Your task to perform on an android device: Do I have any events tomorrow? Image 0: 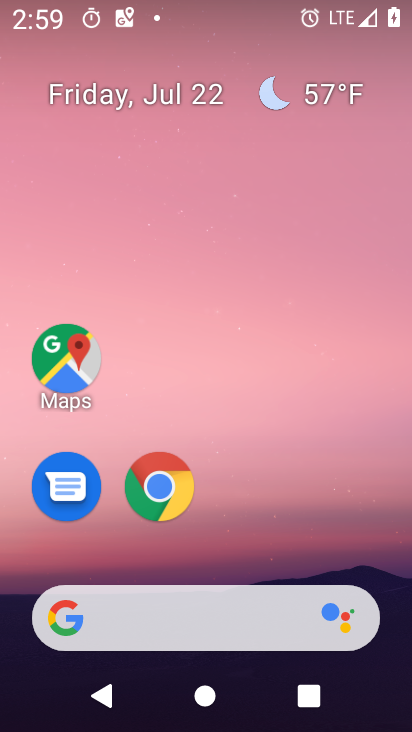
Step 0: press home button
Your task to perform on an android device: Do I have any events tomorrow? Image 1: 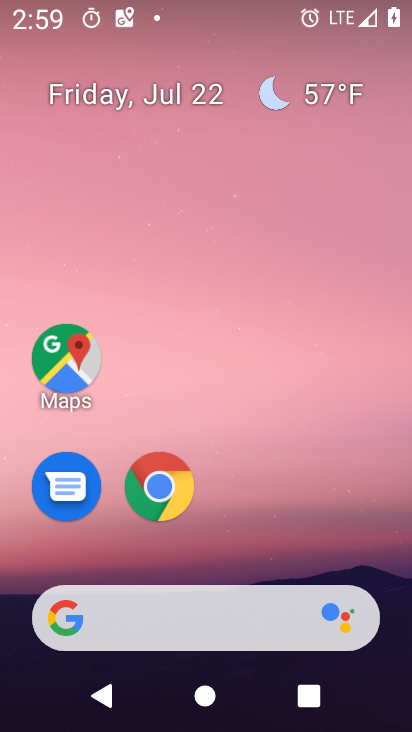
Step 1: drag from (377, 506) to (358, 164)
Your task to perform on an android device: Do I have any events tomorrow? Image 2: 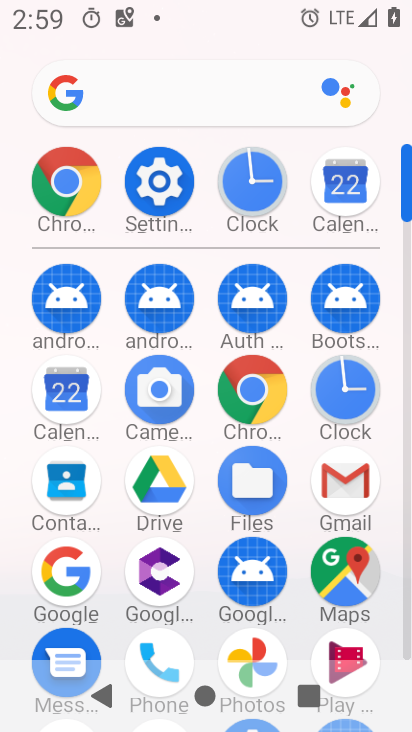
Step 2: click (347, 201)
Your task to perform on an android device: Do I have any events tomorrow? Image 3: 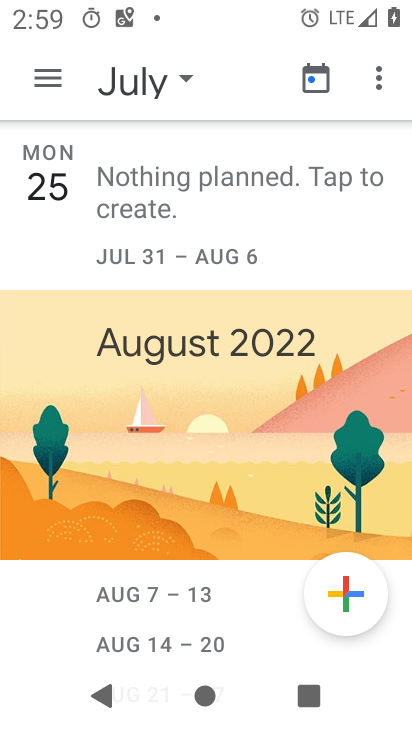
Step 3: click (182, 79)
Your task to perform on an android device: Do I have any events tomorrow? Image 4: 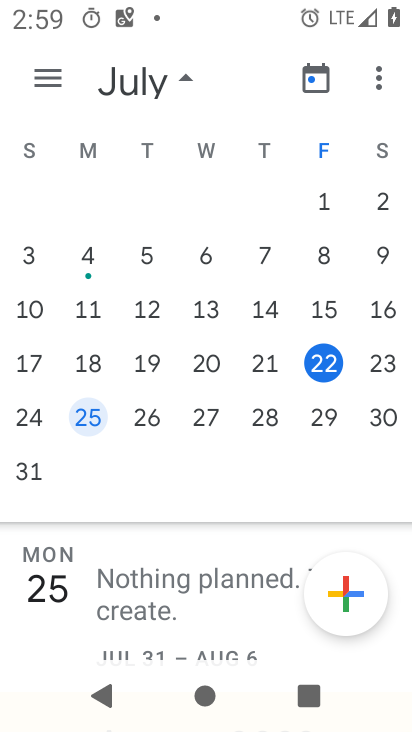
Step 4: click (381, 361)
Your task to perform on an android device: Do I have any events tomorrow? Image 5: 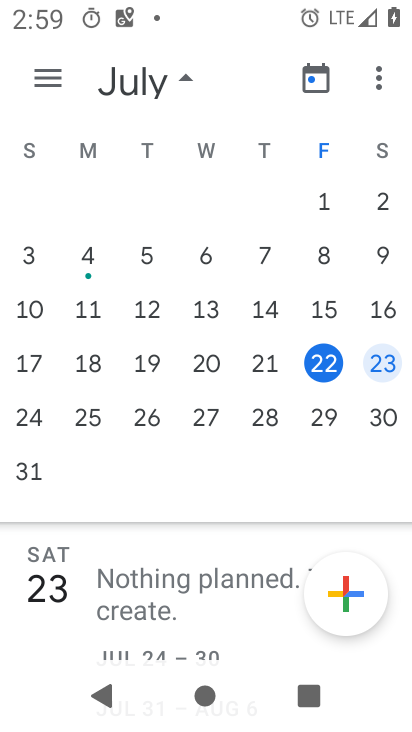
Step 5: task complete